Your task to perform on an android device: Go to location settings Image 0: 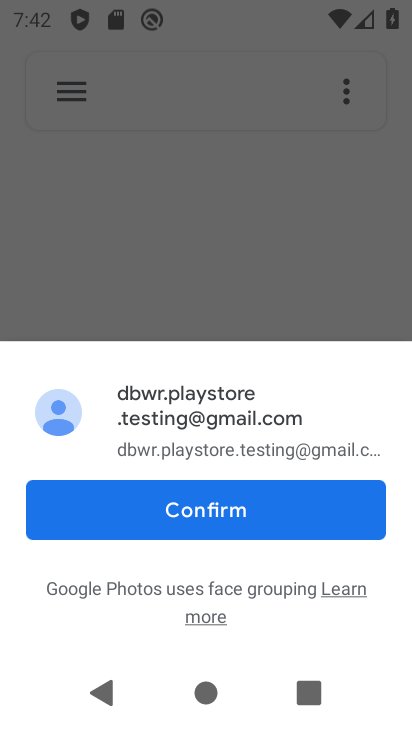
Step 0: press home button
Your task to perform on an android device: Go to location settings Image 1: 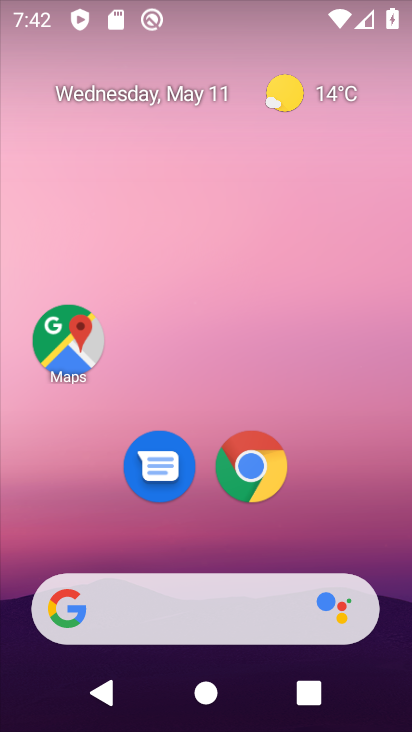
Step 1: drag from (203, 559) to (287, 41)
Your task to perform on an android device: Go to location settings Image 2: 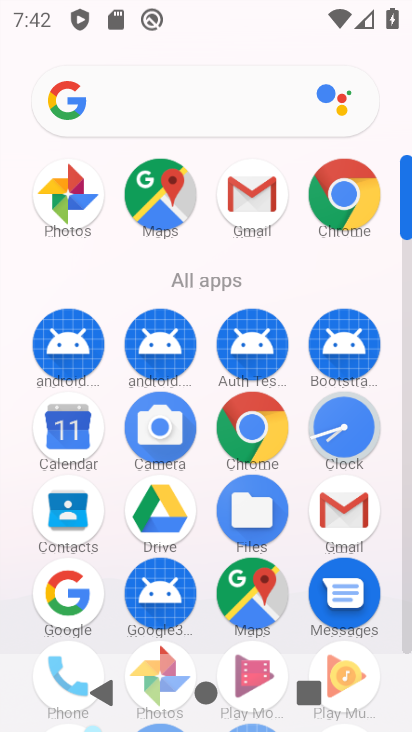
Step 2: drag from (177, 526) to (227, 192)
Your task to perform on an android device: Go to location settings Image 3: 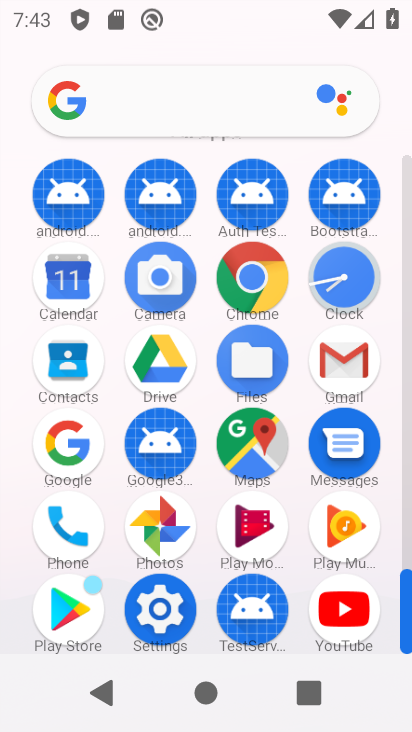
Step 3: click (155, 604)
Your task to perform on an android device: Go to location settings Image 4: 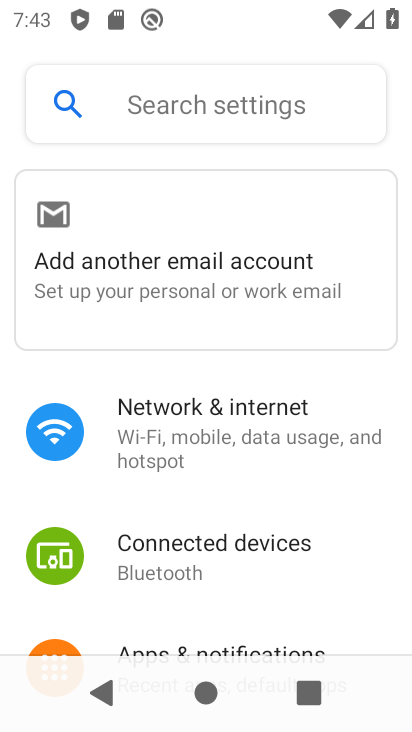
Step 4: drag from (102, 604) to (112, 295)
Your task to perform on an android device: Go to location settings Image 5: 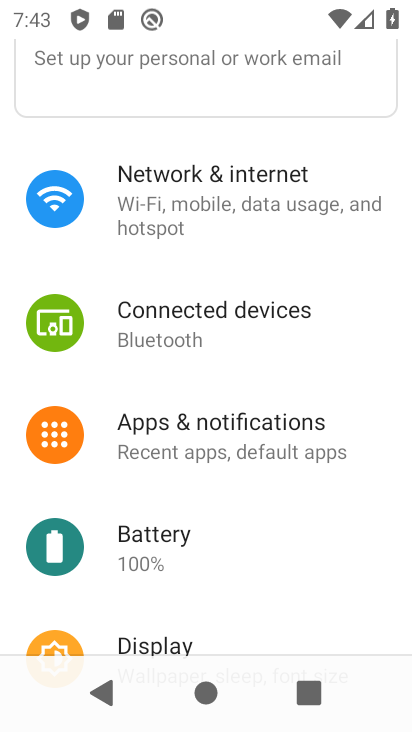
Step 5: drag from (158, 538) to (163, 221)
Your task to perform on an android device: Go to location settings Image 6: 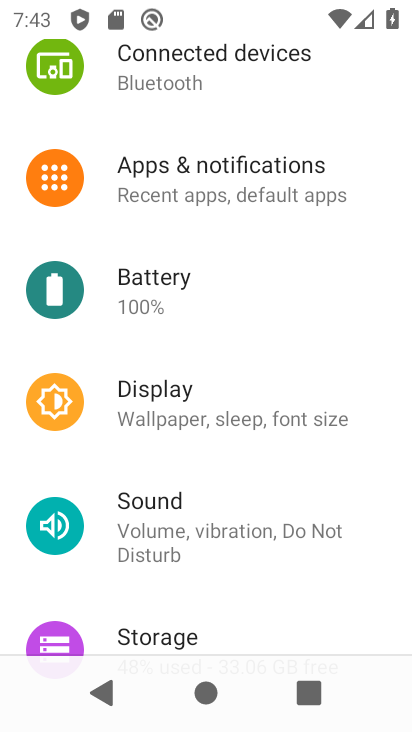
Step 6: drag from (209, 337) to (218, 282)
Your task to perform on an android device: Go to location settings Image 7: 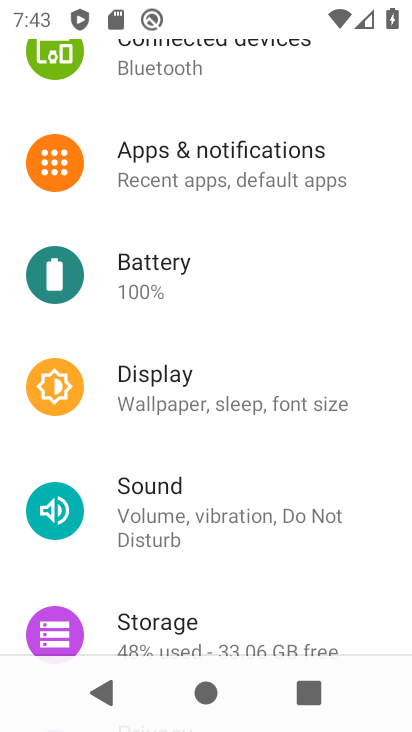
Step 7: drag from (187, 541) to (195, 290)
Your task to perform on an android device: Go to location settings Image 8: 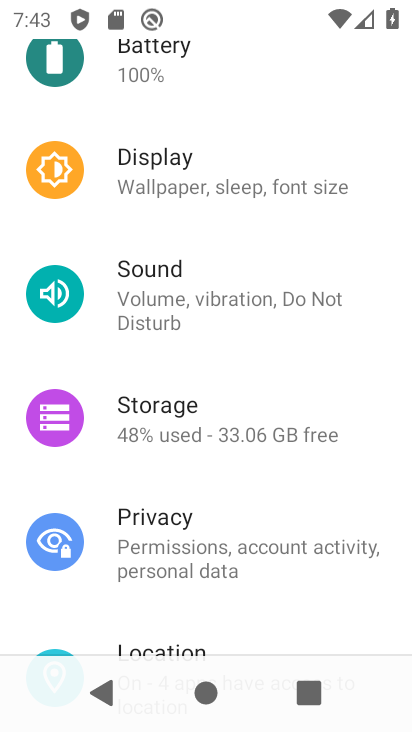
Step 8: drag from (169, 490) to (264, 217)
Your task to perform on an android device: Go to location settings Image 9: 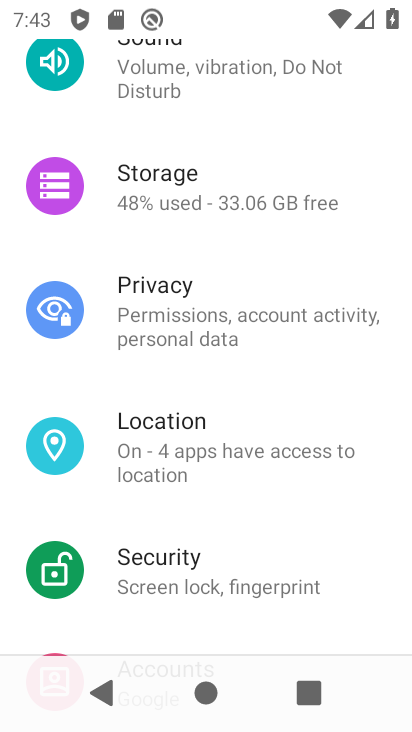
Step 9: click (141, 477)
Your task to perform on an android device: Go to location settings Image 10: 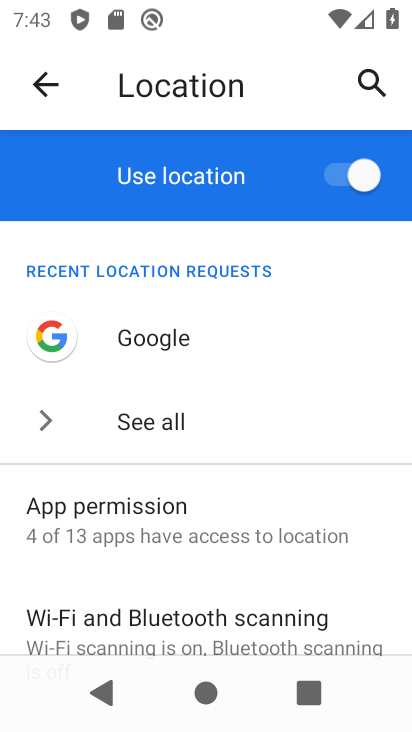
Step 10: task complete